Your task to perform on an android device: What's the price of the new iPhone on eBay? Image 0: 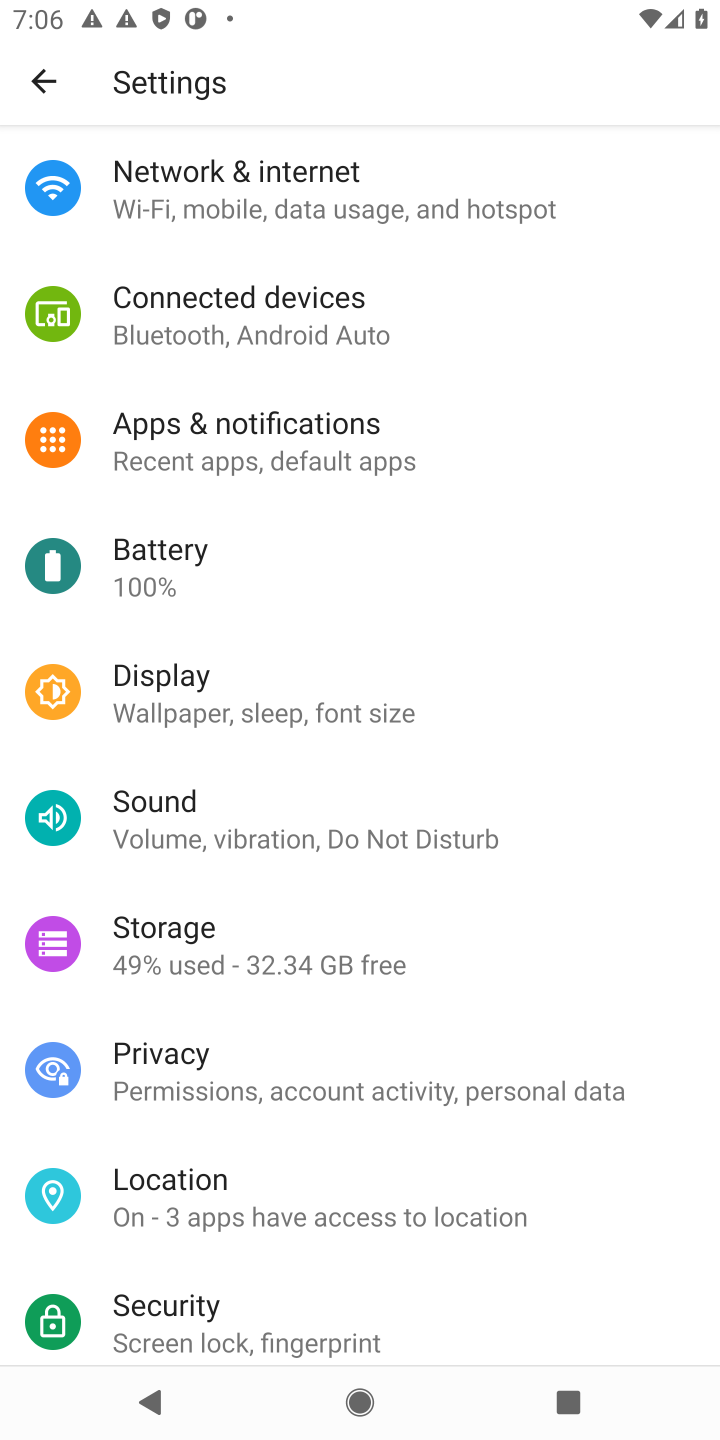
Step 0: press home button
Your task to perform on an android device: What's the price of the new iPhone on eBay? Image 1: 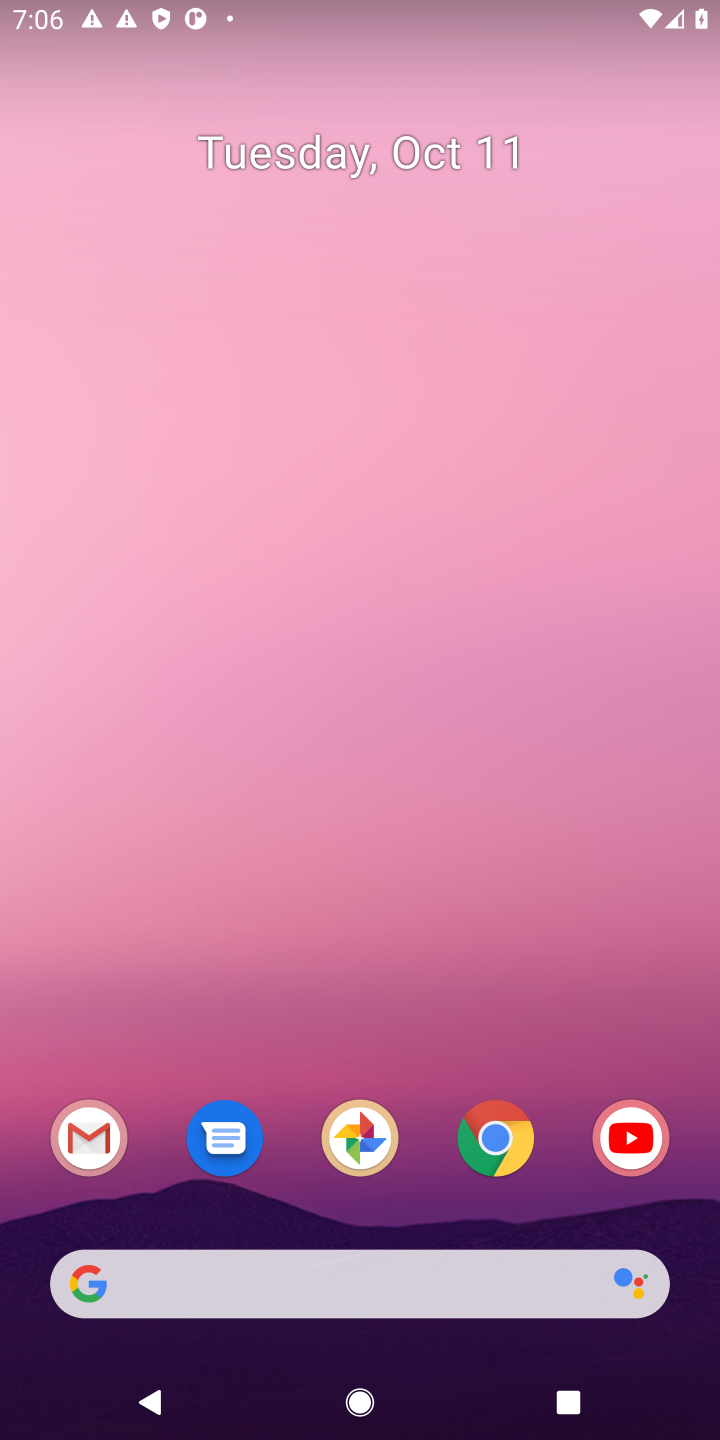
Step 1: click (239, 1287)
Your task to perform on an android device: What's the price of the new iPhone on eBay? Image 2: 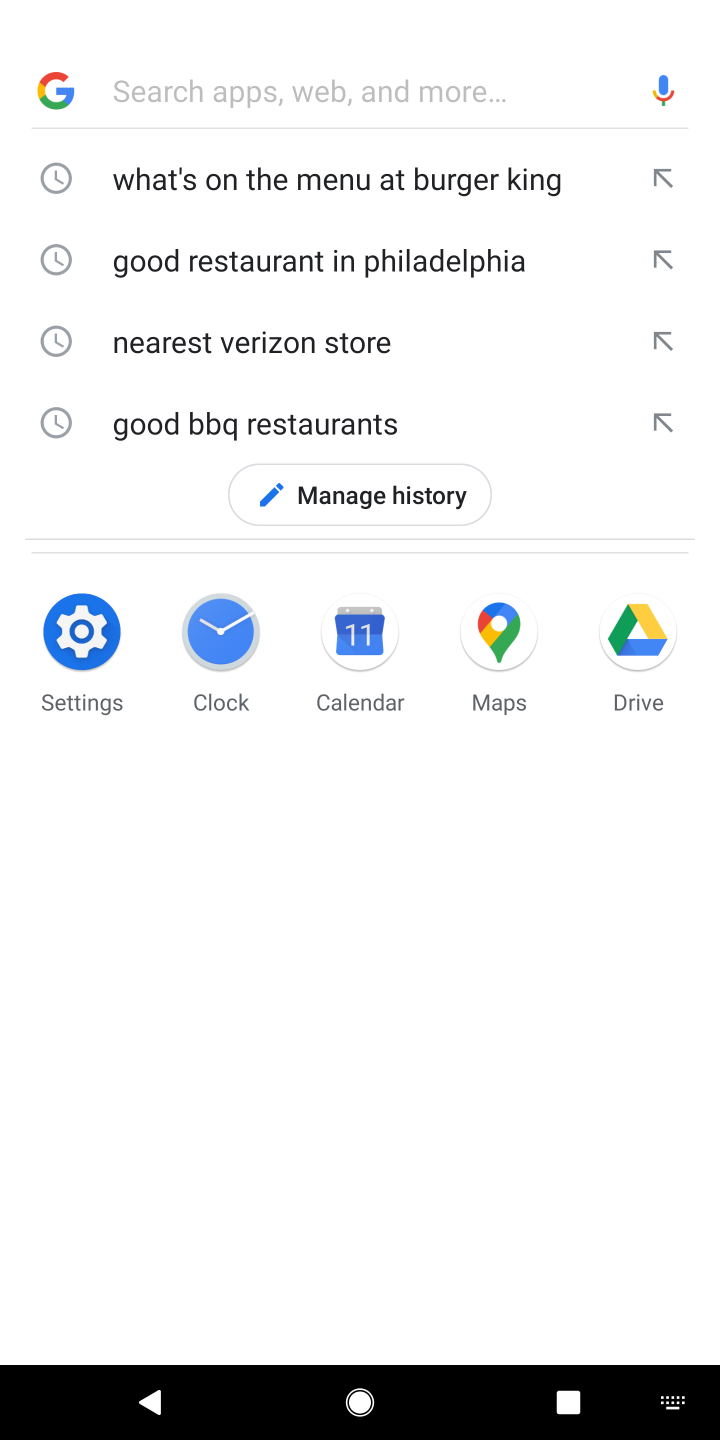
Step 2: type "What's the price of the new iPhone on eBay?"
Your task to perform on an android device: What's the price of the new iPhone on eBay? Image 3: 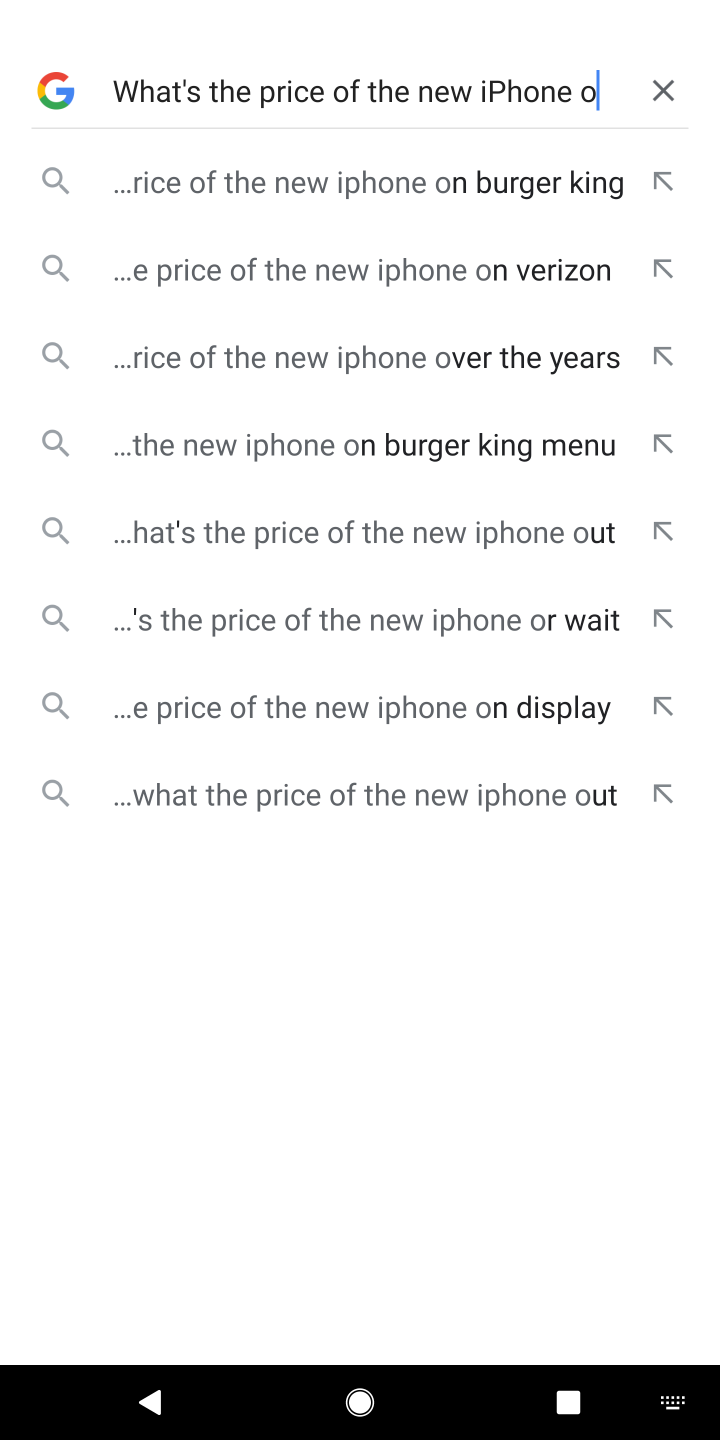
Step 3: type "n ebay"
Your task to perform on an android device: What's the price of the new iPhone on eBay? Image 4: 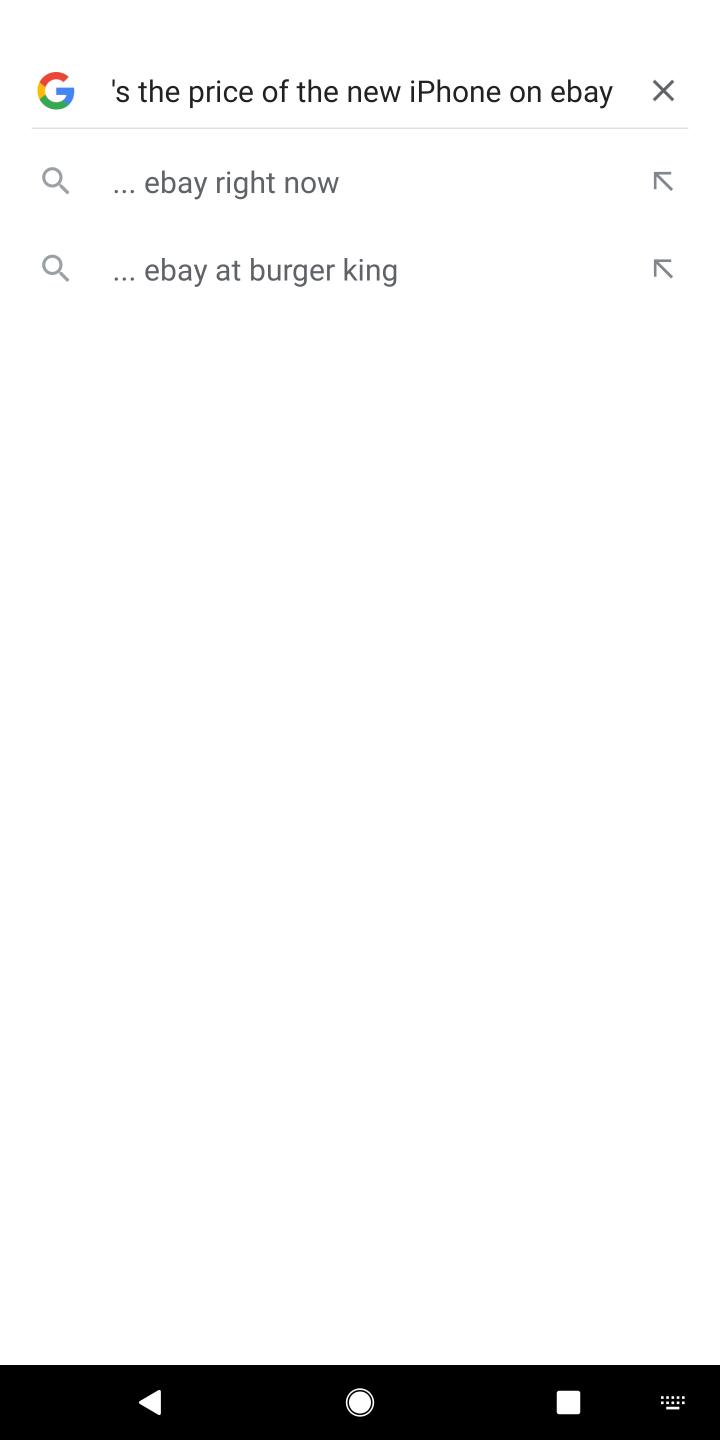
Step 4: click (283, 163)
Your task to perform on an android device: What's the price of the new iPhone on eBay? Image 5: 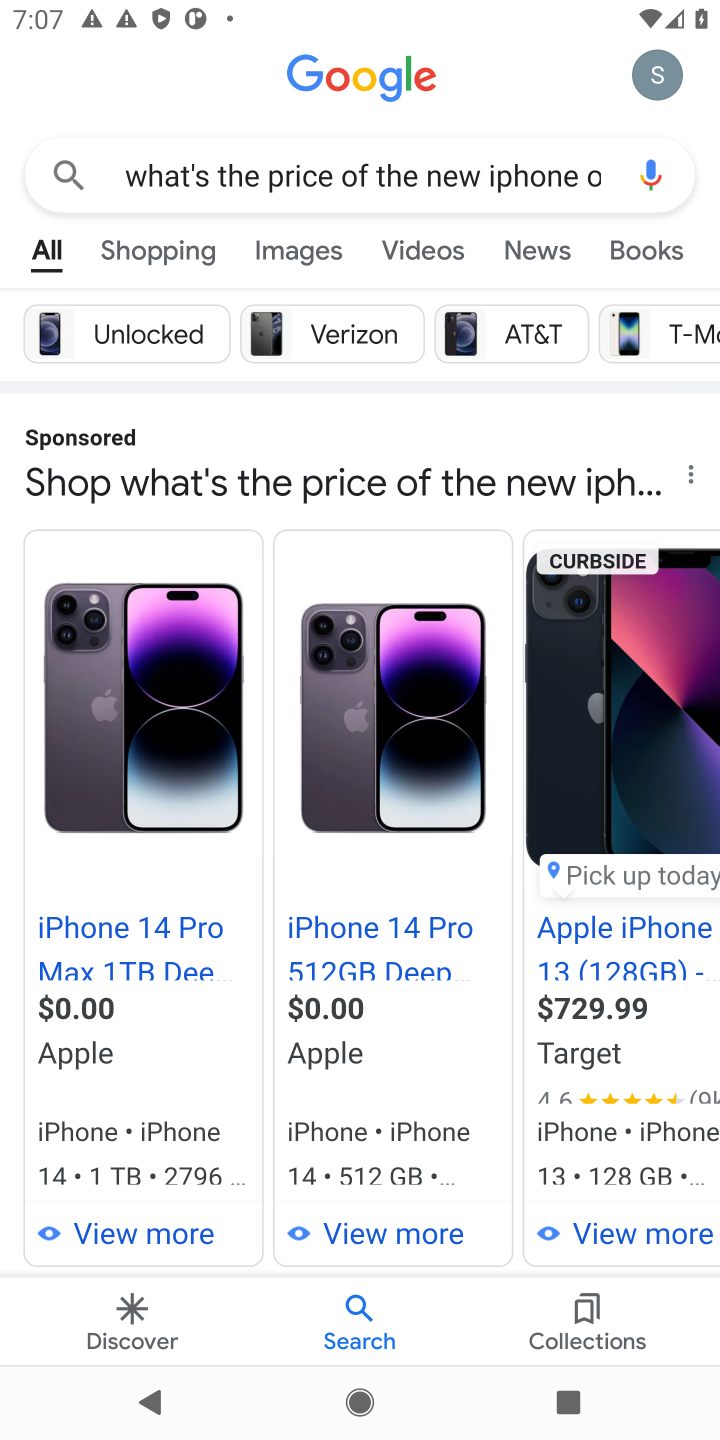
Step 5: drag from (491, 1194) to (473, 909)
Your task to perform on an android device: What's the price of the new iPhone on eBay? Image 6: 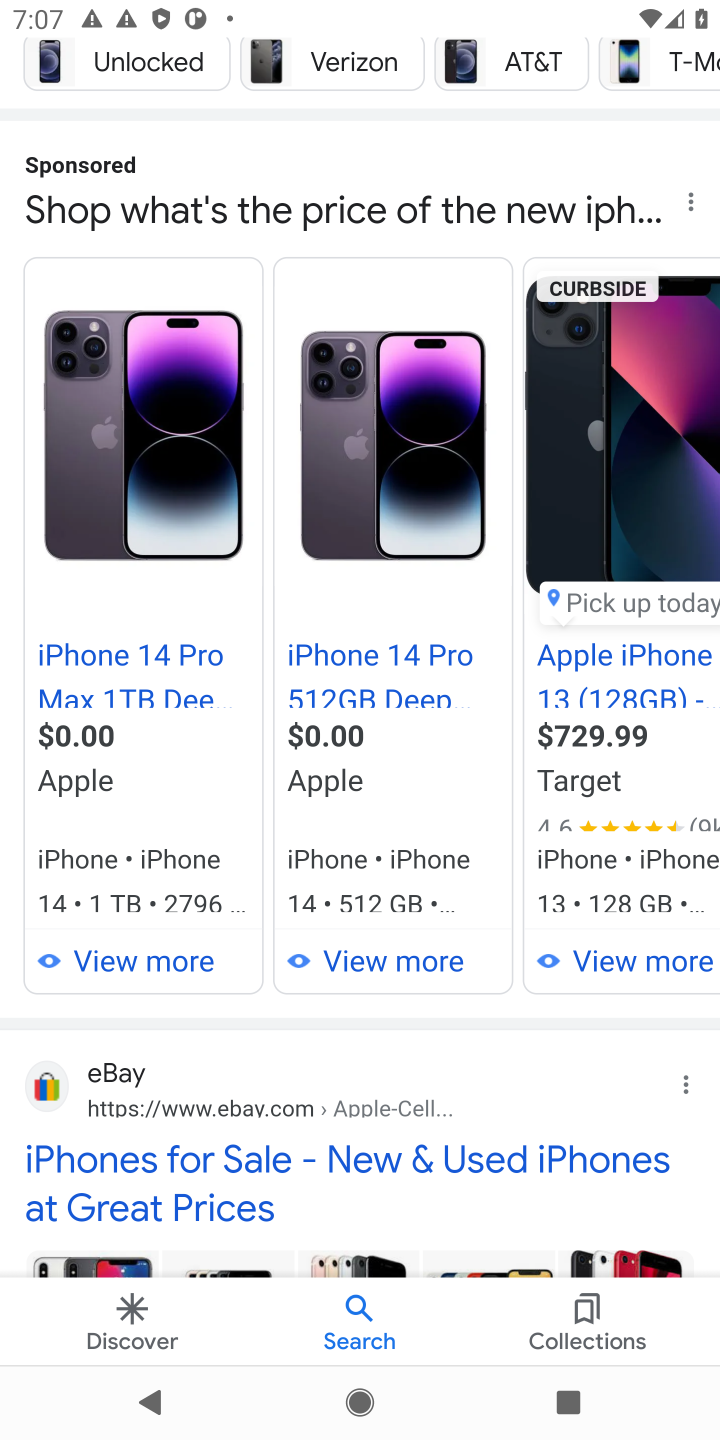
Step 6: drag from (481, 1039) to (437, 722)
Your task to perform on an android device: What's the price of the new iPhone on eBay? Image 7: 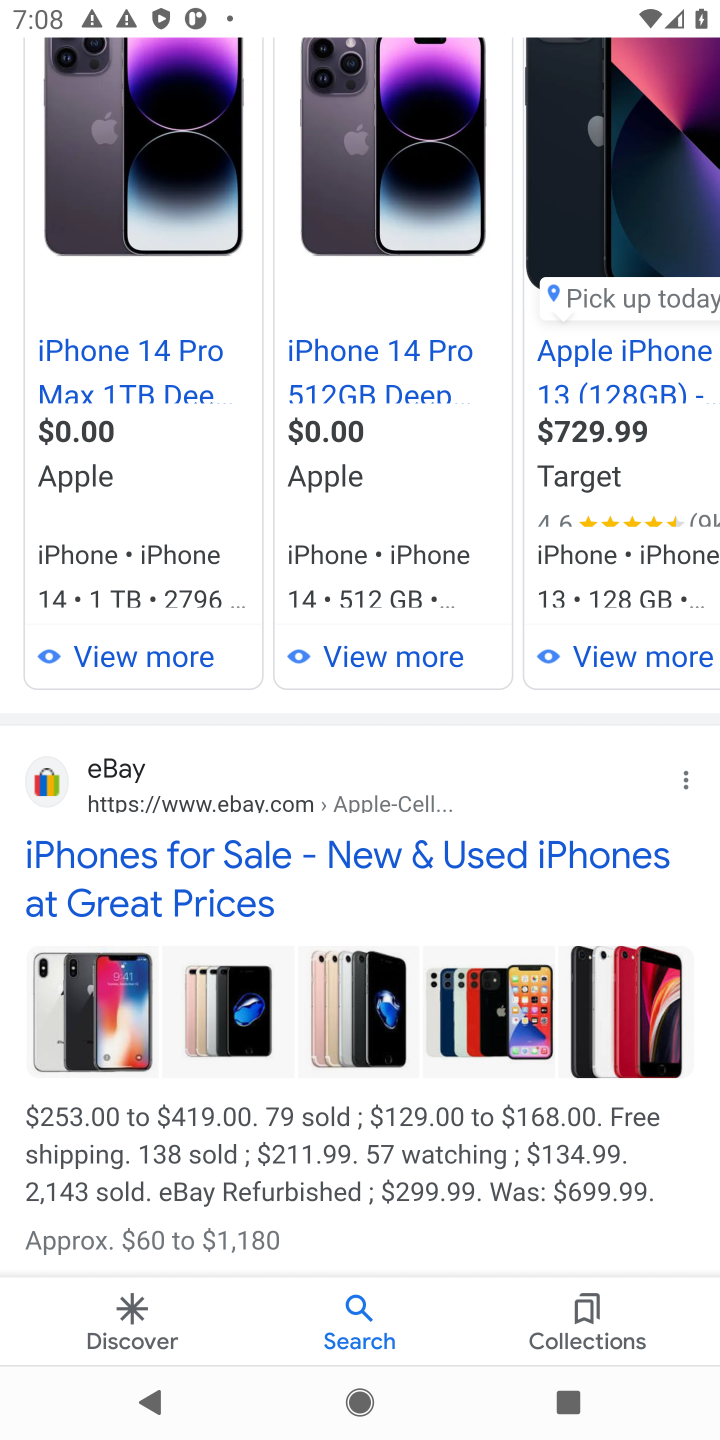
Step 7: click (256, 862)
Your task to perform on an android device: What's the price of the new iPhone on eBay? Image 8: 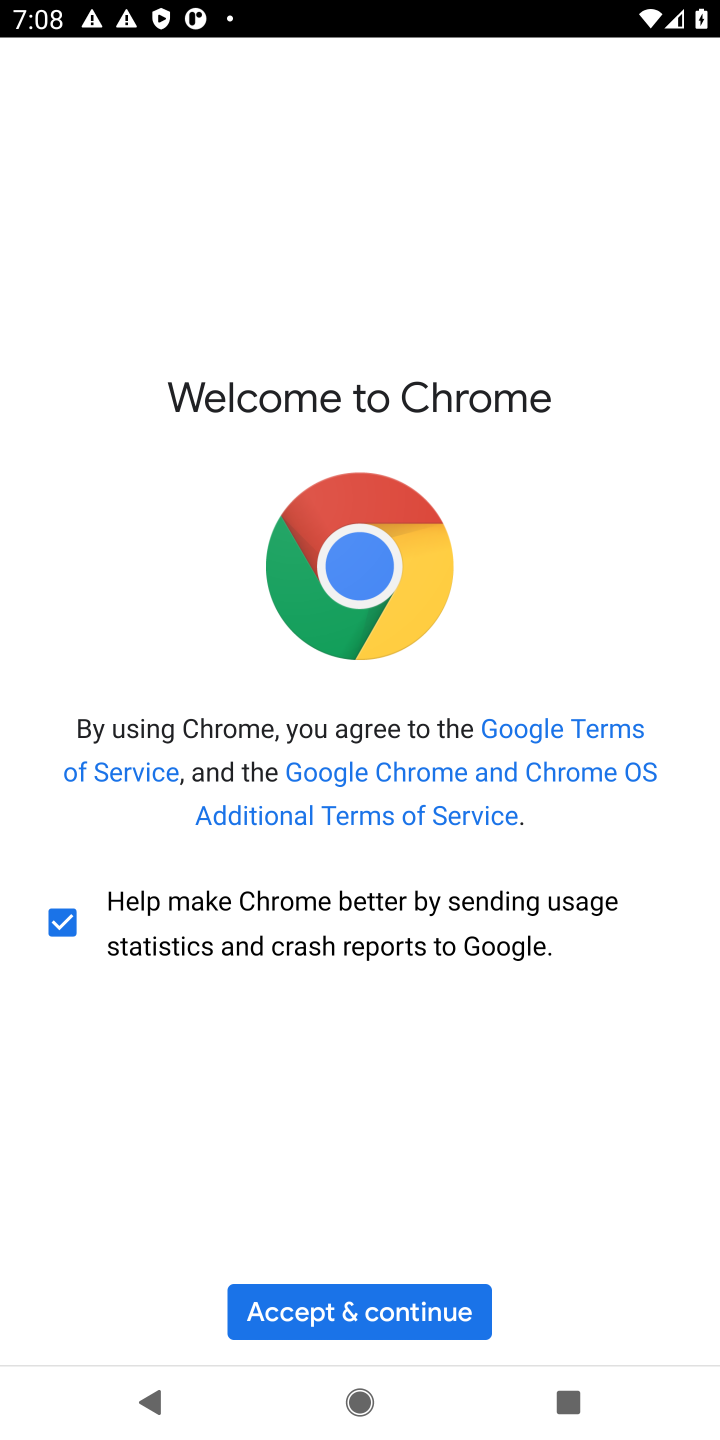
Step 8: click (327, 1317)
Your task to perform on an android device: What's the price of the new iPhone on eBay? Image 9: 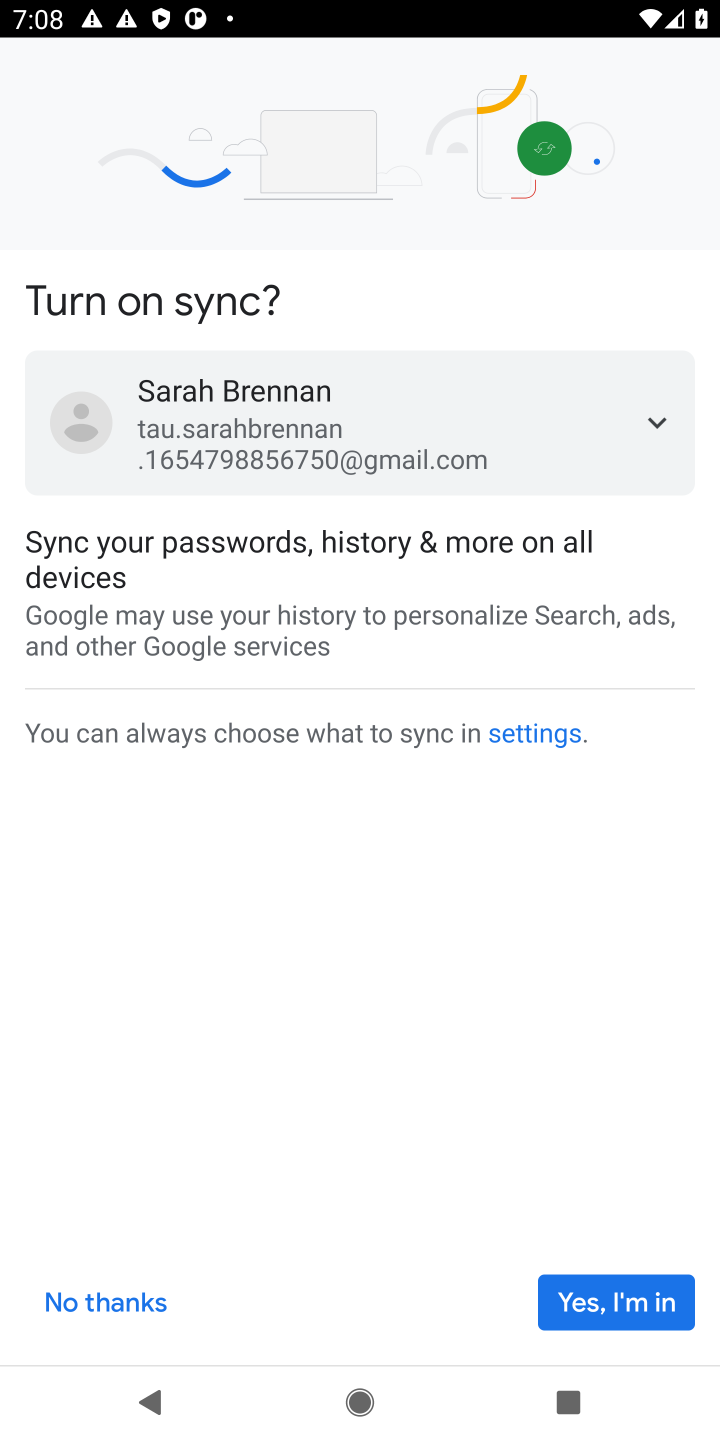
Step 9: click (111, 1289)
Your task to perform on an android device: What's the price of the new iPhone on eBay? Image 10: 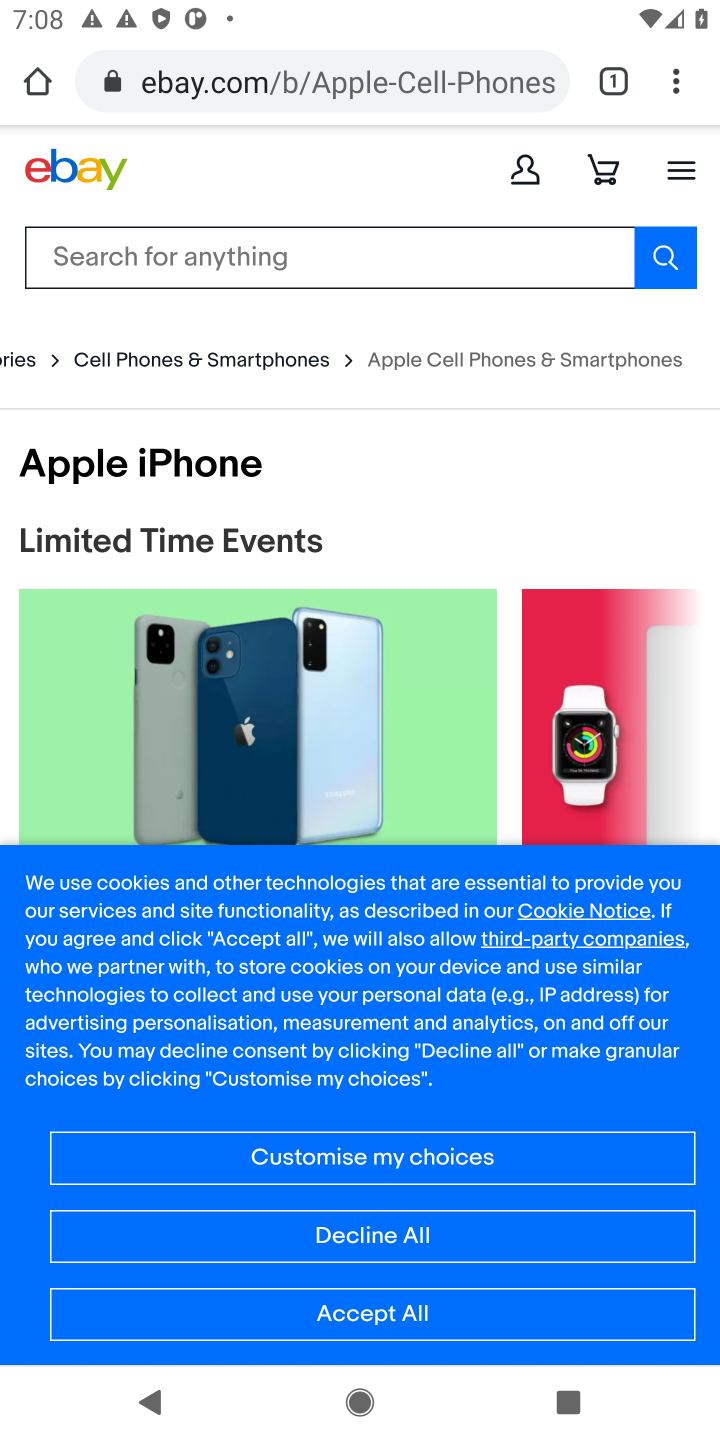
Step 10: click (365, 1326)
Your task to perform on an android device: What's the price of the new iPhone on eBay? Image 11: 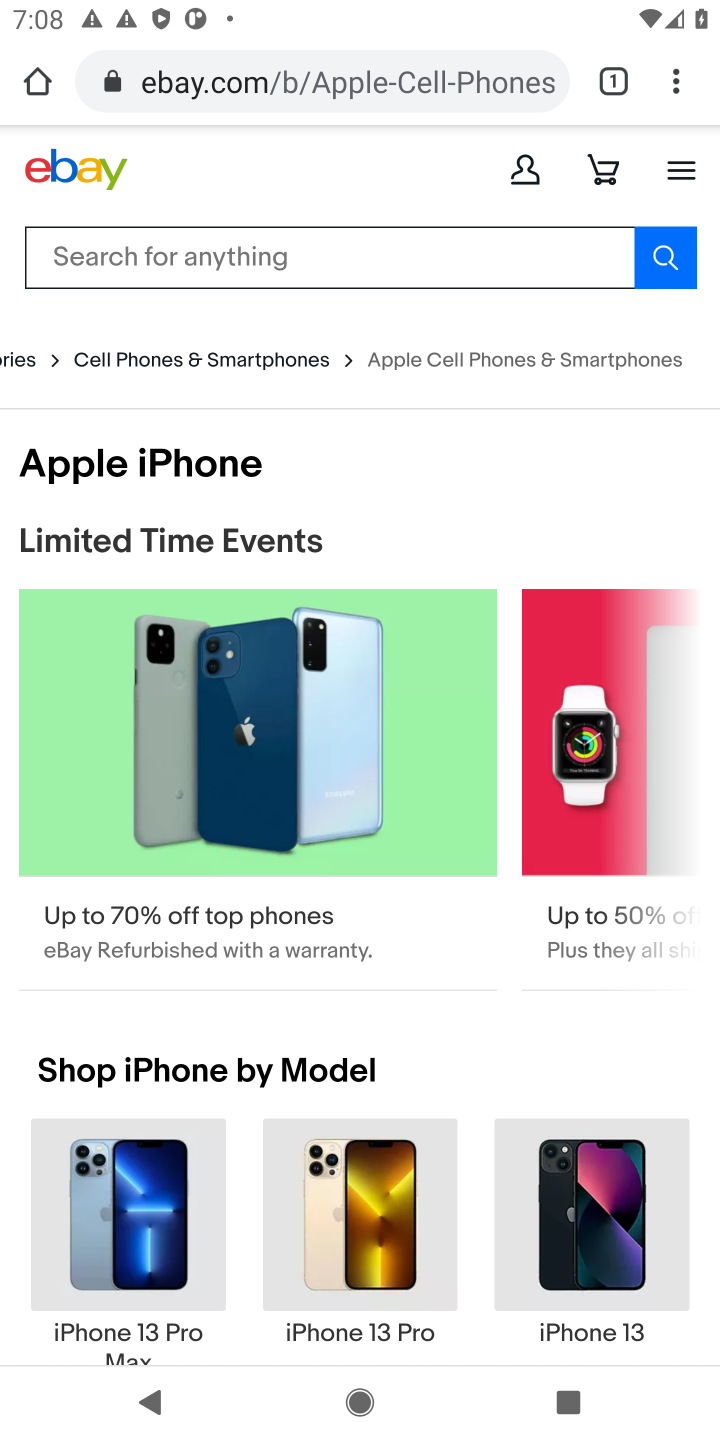
Step 11: drag from (463, 1008) to (395, 745)
Your task to perform on an android device: What's the price of the new iPhone on eBay? Image 12: 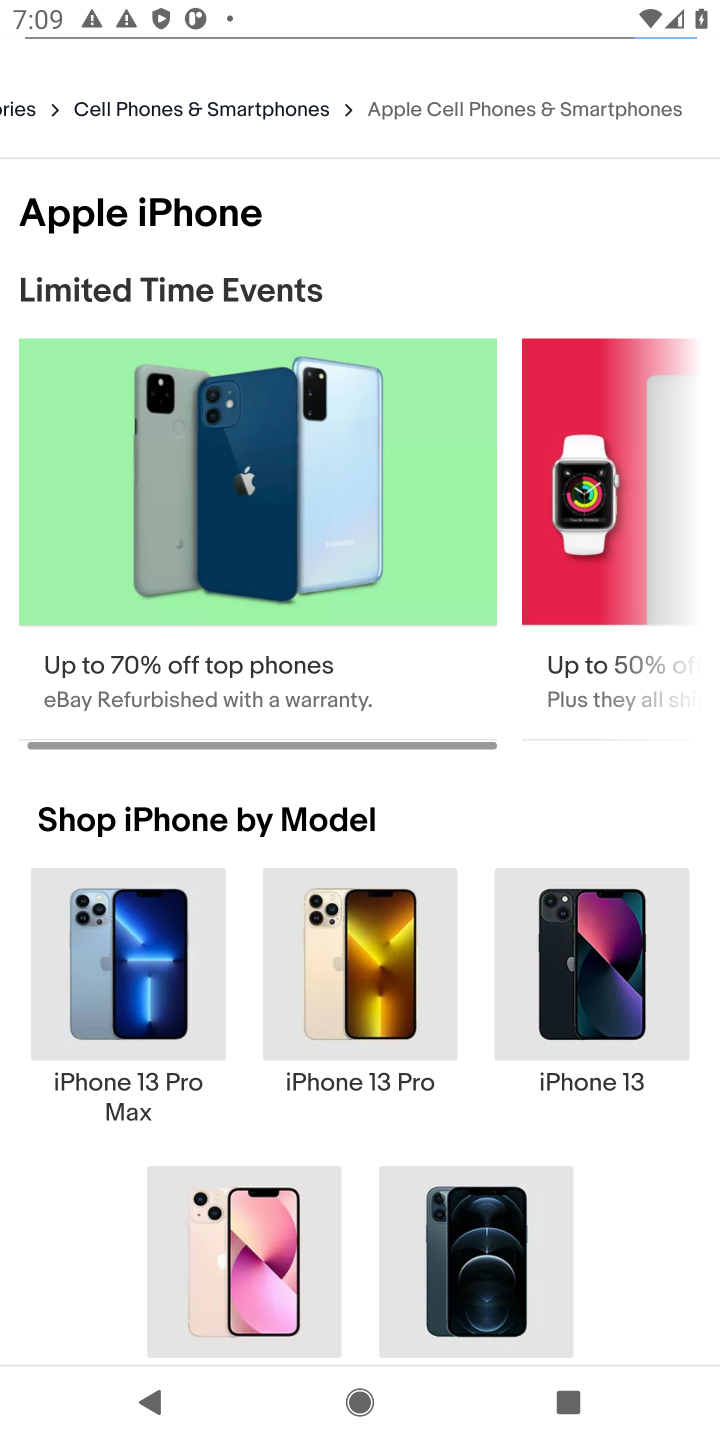
Step 12: drag from (473, 1078) to (437, 783)
Your task to perform on an android device: What's the price of the new iPhone on eBay? Image 13: 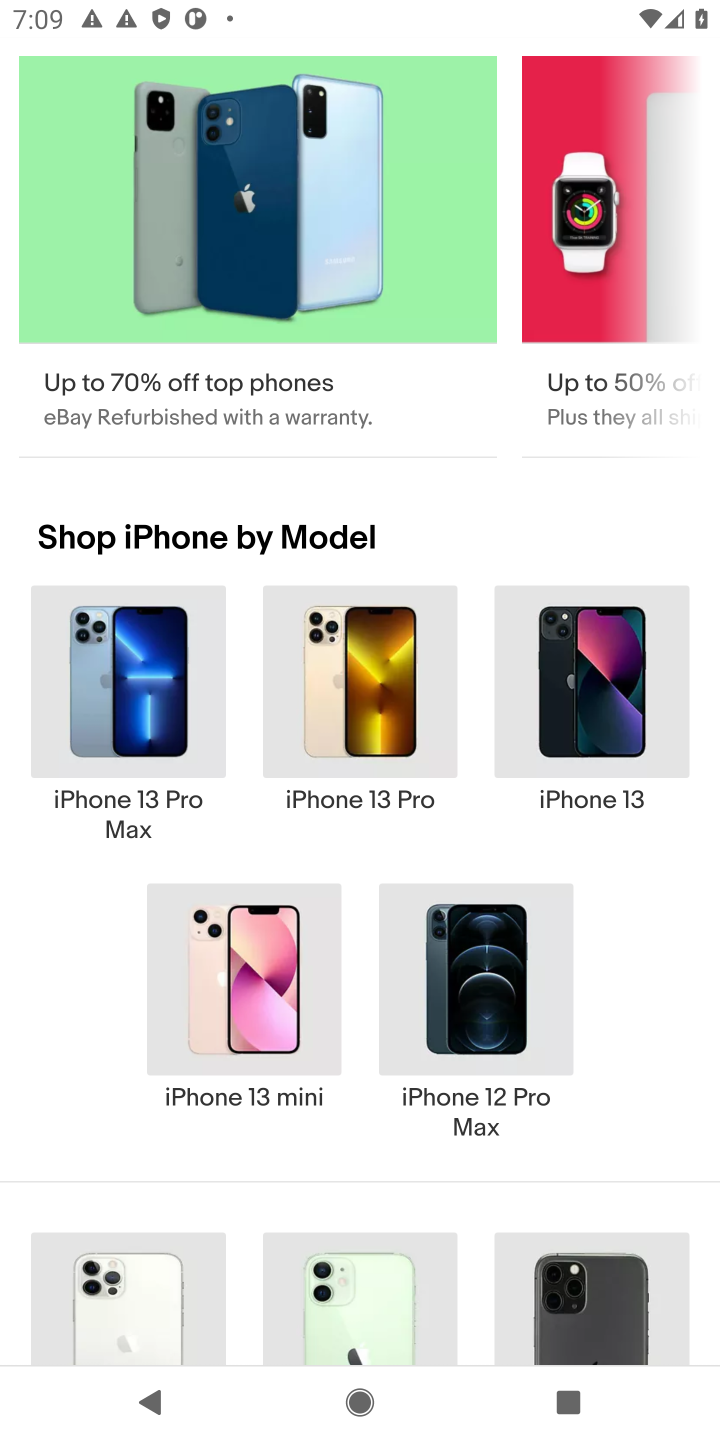
Step 13: click (364, 601)
Your task to perform on an android device: What's the price of the new iPhone on eBay? Image 14: 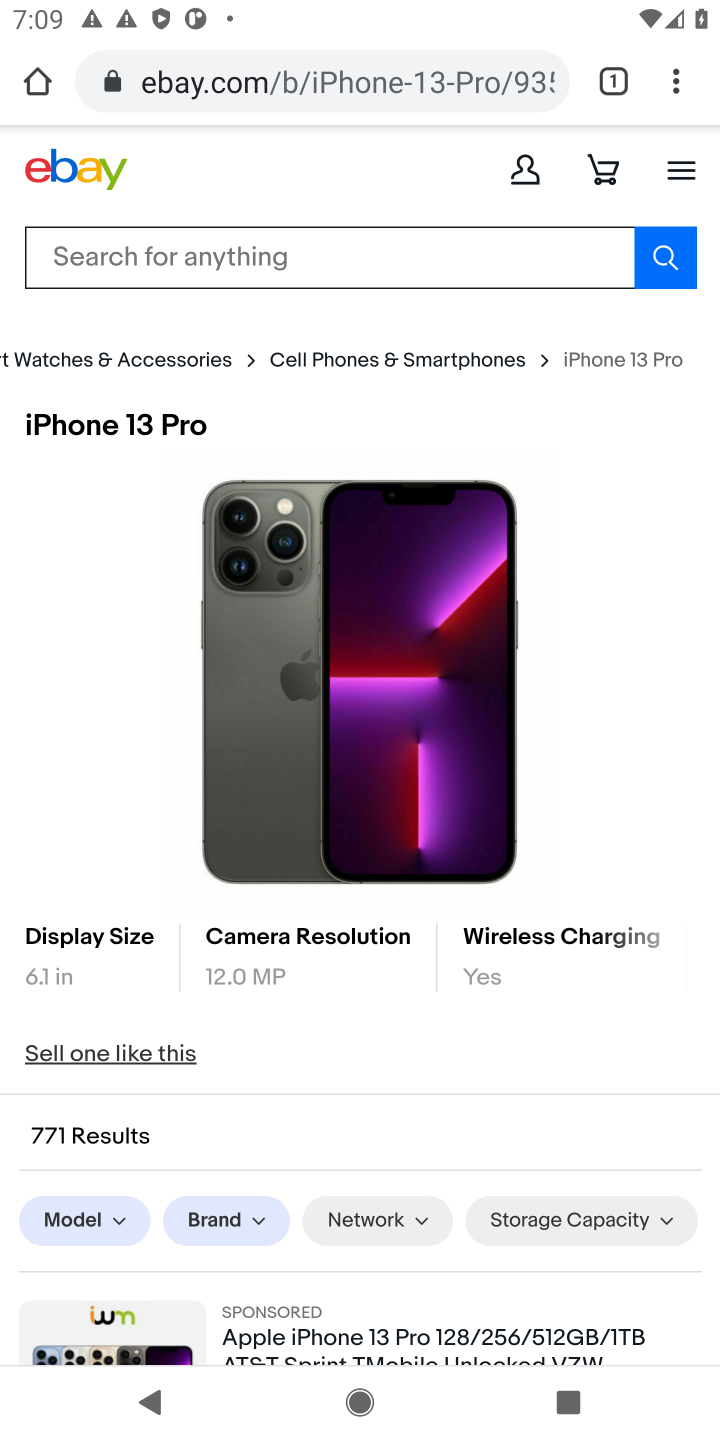
Step 14: task complete